Your task to perform on an android device: check battery use Image 0: 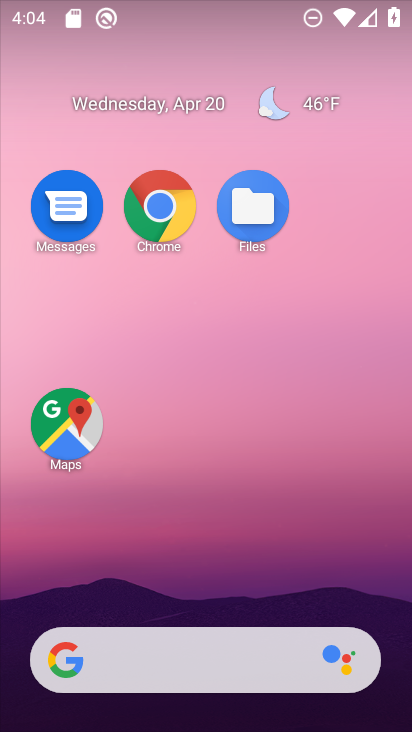
Step 0: drag from (198, 585) to (312, 3)
Your task to perform on an android device: check battery use Image 1: 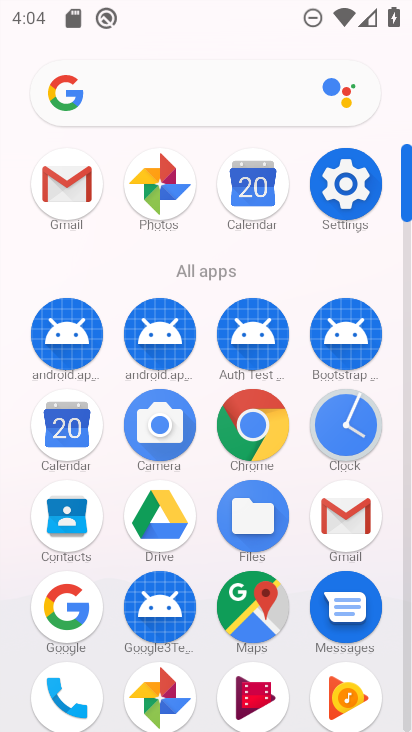
Step 1: click (338, 265)
Your task to perform on an android device: check battery use Image 2: 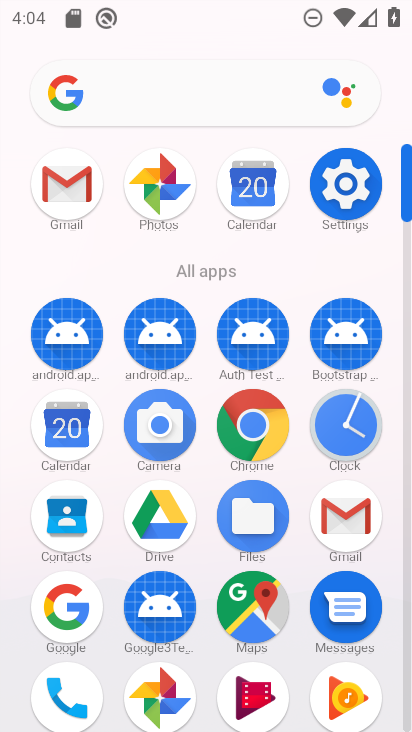
Step 2: click (350, 210)
Your task to perform on an android device: check battery use Image 3: 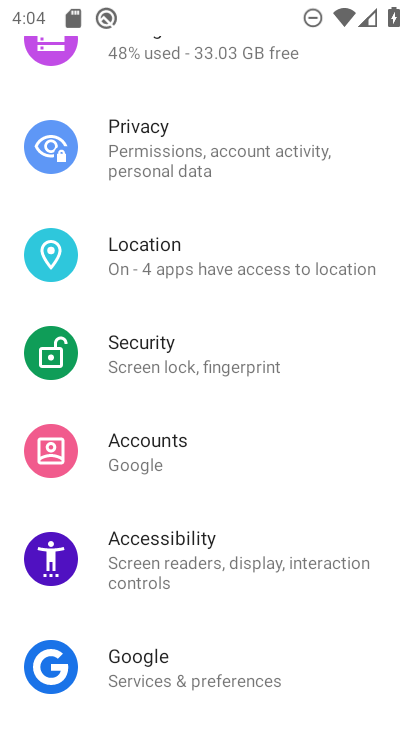
Step 3: drag from (204, 222) to (154, 637)
Your task to perform on an android device: check battery use Image 4: 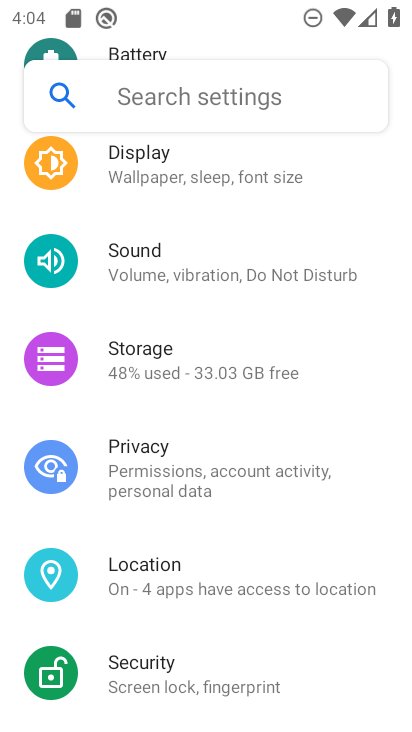
Step 4: drag from (202, 267) to (164, 699)
Your task to perform on an android device: check battery use Image 5: 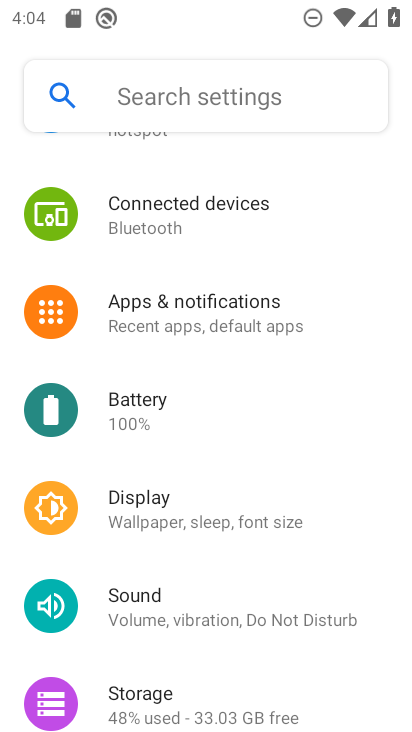
Step 5: click (156, 411)
Your task to perform on an android device: check battery use Image 6: 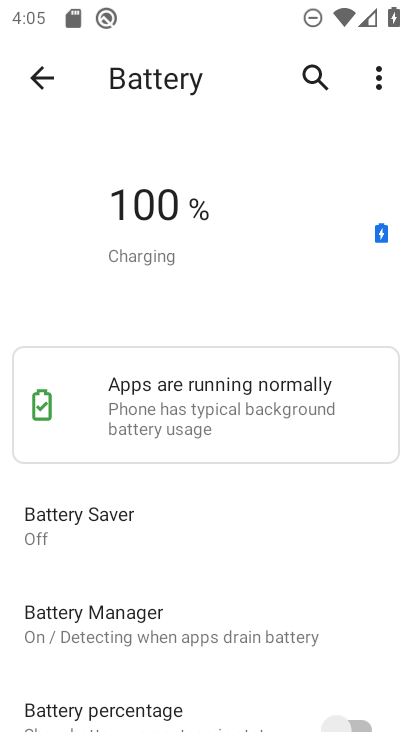
Step 6: click (377, 77)
Your task to perform on an android device: check battery use Image 7: 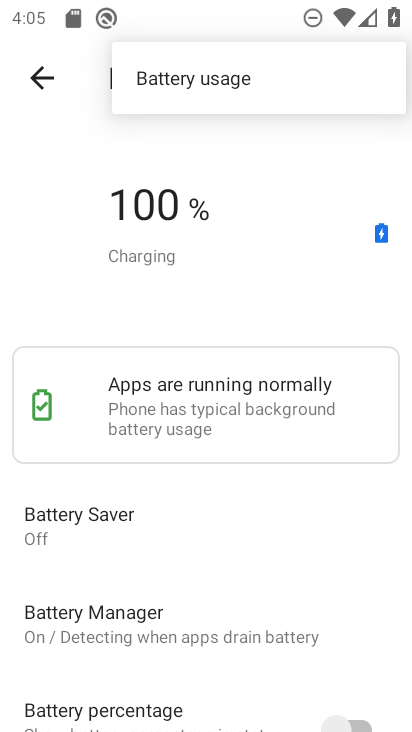
Step 7: click (268, 88)
Your task to perform on an android device: check battery use Image 8: 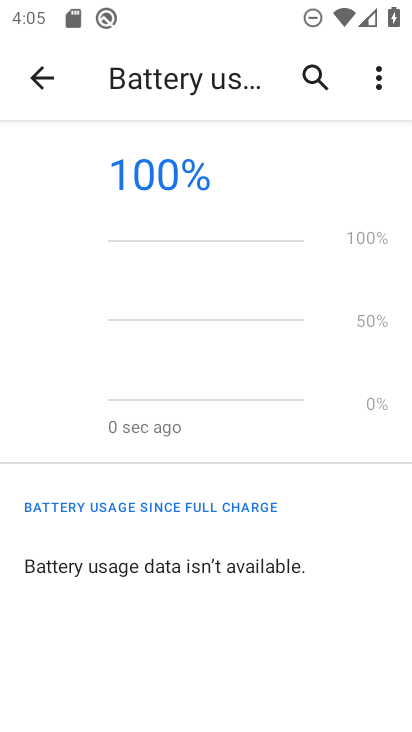
Step 8: task complete